Your task to perform on an android device: read, delete, or share a saved page in the chrome app Image 0: 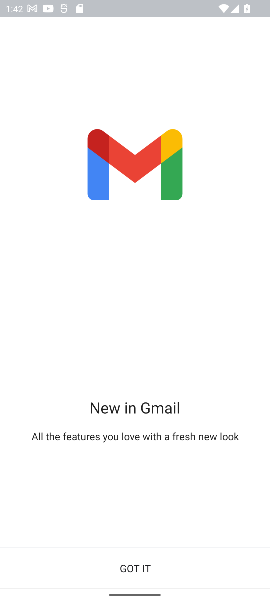
Step 0: press home button
Your task to perform on an android device: read, delete, or share a saved page in the chrome app Image 1: 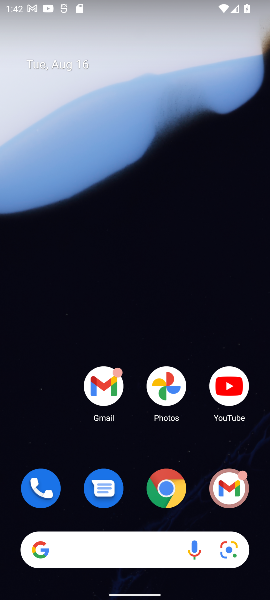
Step 1: click (166, 487)
Your task to perform on an android device: read, delete, or share a saved page in the chrome app Image 2: 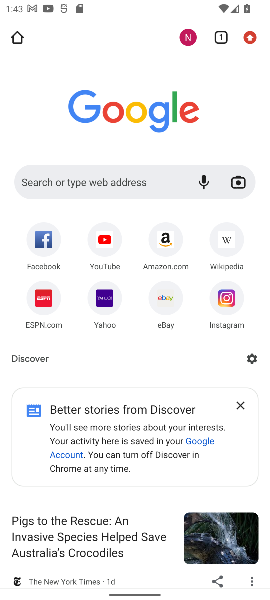
Step 2: task complete